Your task to perform on an android device: Go to wifi settings Image 0: 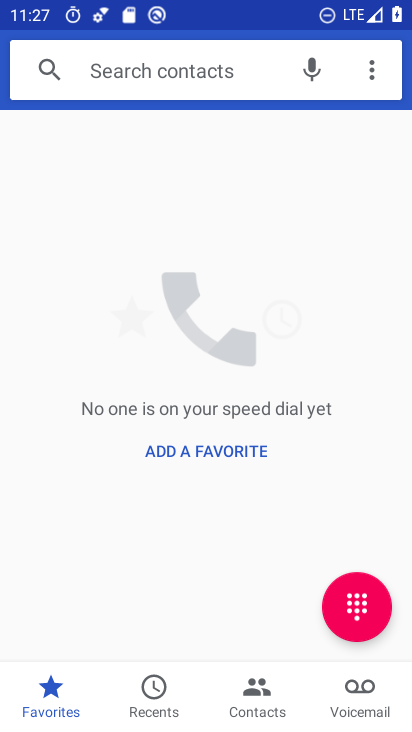
Step 0: press home button
Your task to perform on an android device: Go to wifi settings Image 1: 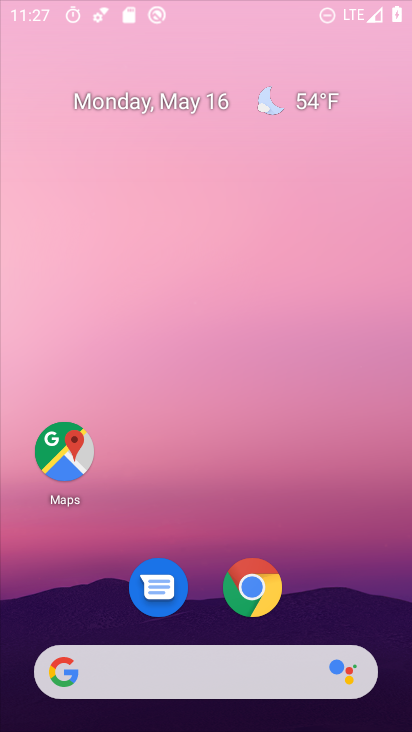
Step 1: drag from (189, 637) to (263, 62)
Your task to perform on an android device: Go to wifi settings Image 2: 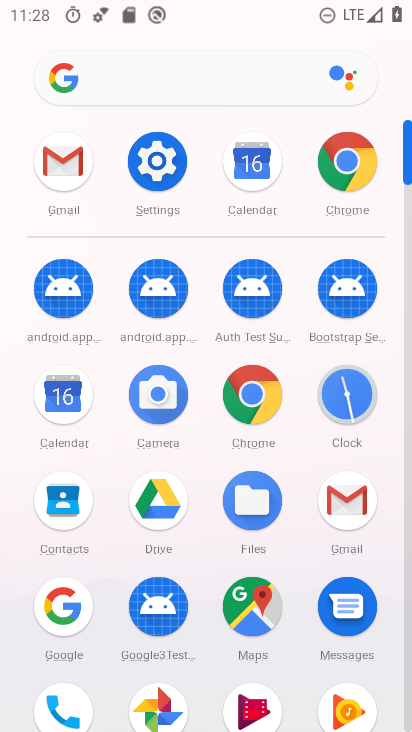
Step 2: click (164, 161)
Your task to perform on an android device: Go to wifi settings Image 3: 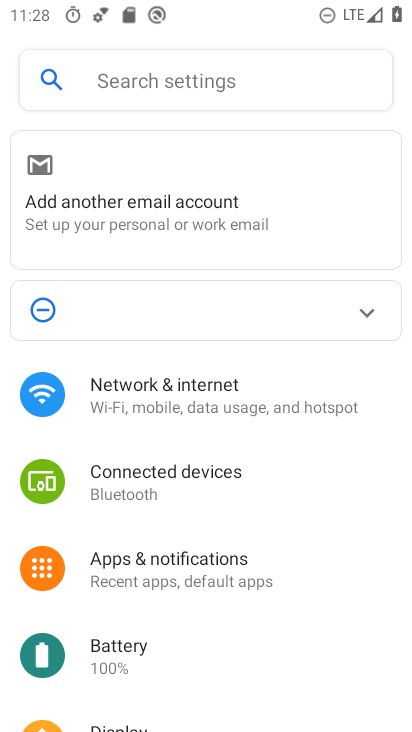
Step 3: click (198, 415)
Your task to perform on an android device: Go to wifi settings Image 4: 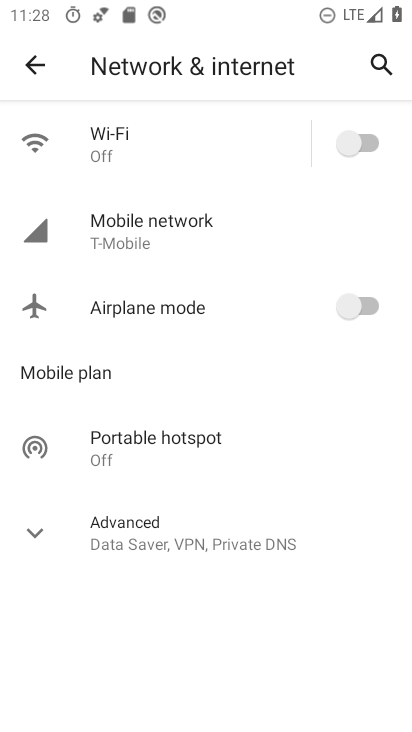
Step 4: click (158, 156)
Your task to perform on an android device: Go to wifi settings Image 5: 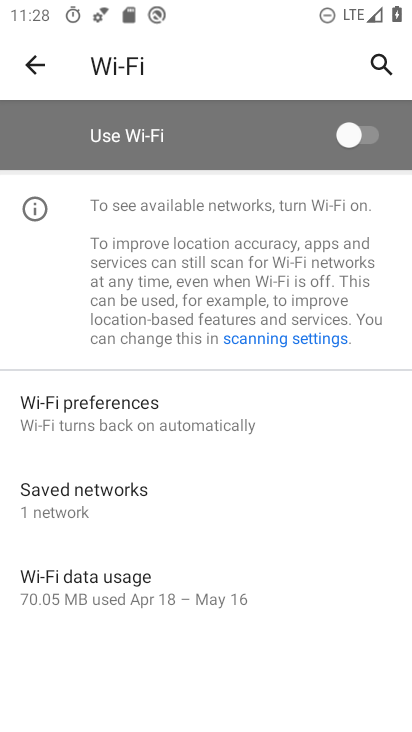
Step 5: task complete